Your task to perform on an android device: Open Google Maps Image 0: 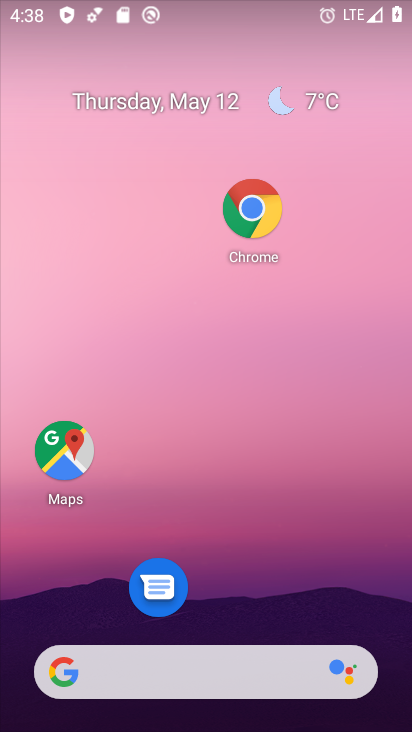
Step 0: click (81, 467)
Your task to perform on an android device: Open Google Maps Image 1: 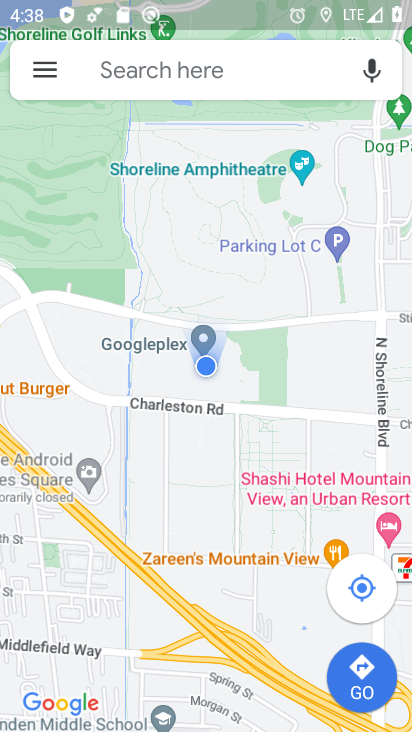
Step 1: task complete